Your task to perform on an android device: change notifications settings Image 0: 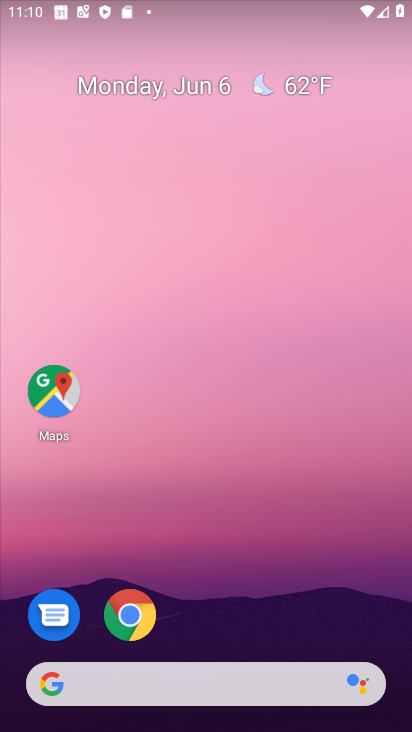
Step 0: press home button
Your task to perform on an android device: change notifications settings Image 1: 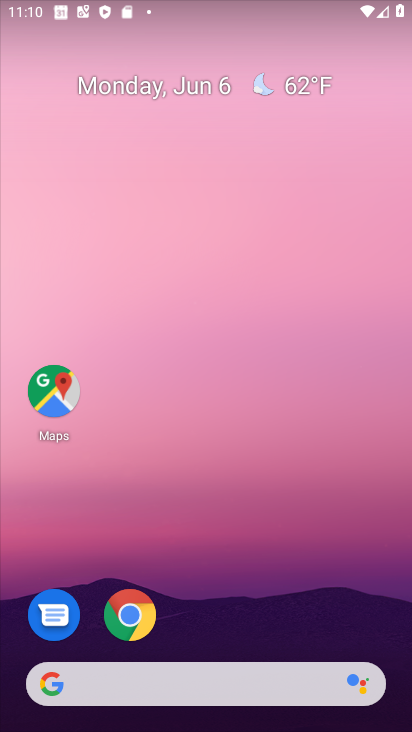
Step 1: drag from (232, 667) to (234, 110)
Your task to perform on an android device: change notifications settings Image 2: 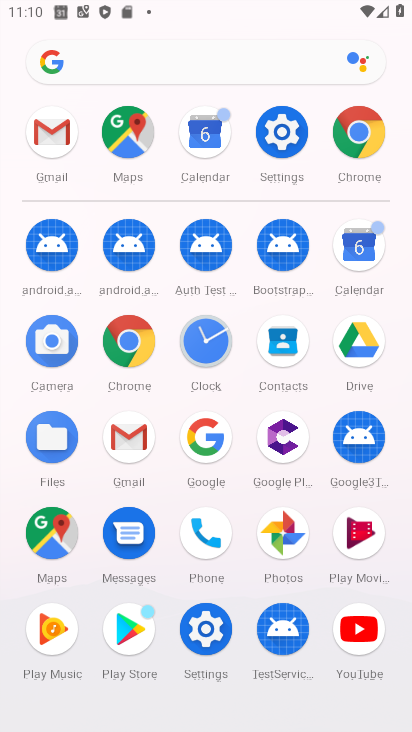
Step 2: click (272, 133)
Your task to perform on an android device: change notifications settings Image 3: 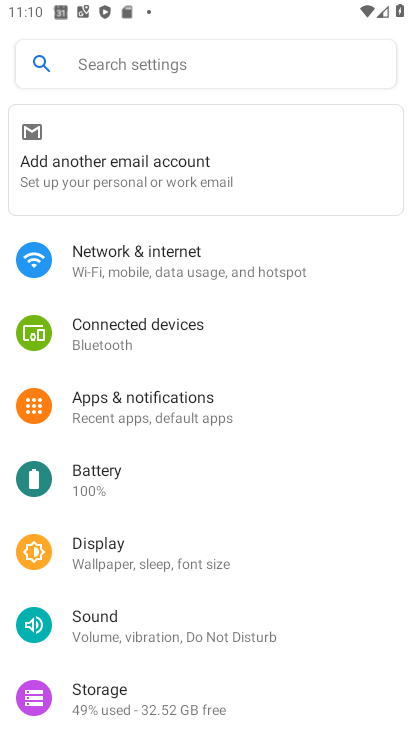
Step 3: click (99, 622)
Your task to perform on an android device: change notifications settings Image 4: 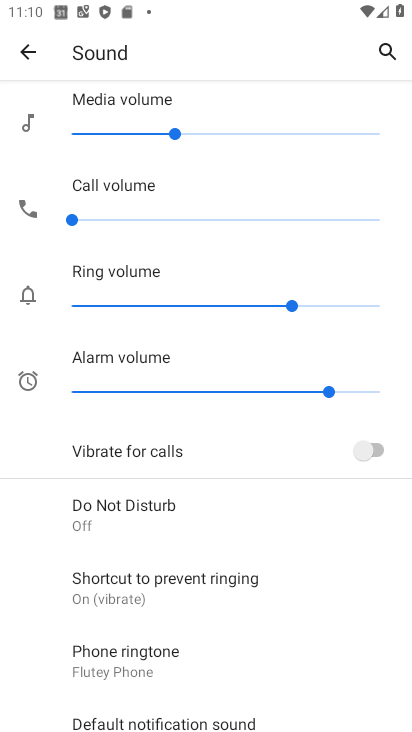
Step 4: drag from (218, 648) to (281, 185)
Your task to perform on an android device: change notifications settings Image 5: 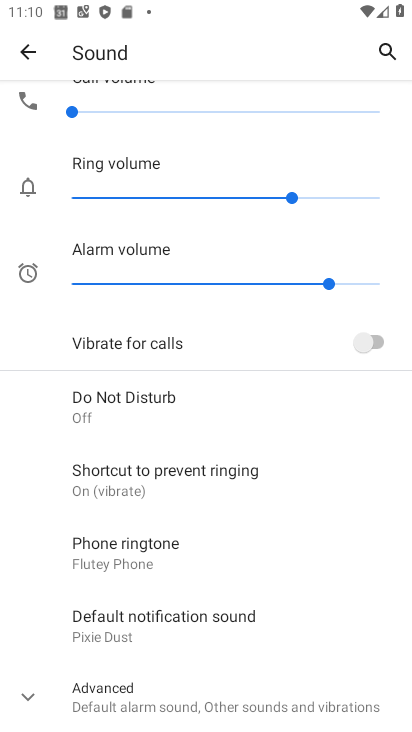
Step 5: click (377, 341)
Your task to perform on an android device: change notifications settings Image 6: 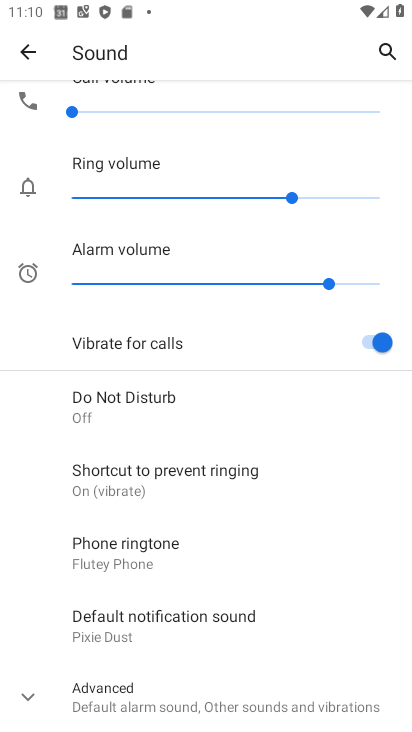
Step 6: click (157, 555)
Your task to perform on an android device: change notifications settings Image 7: 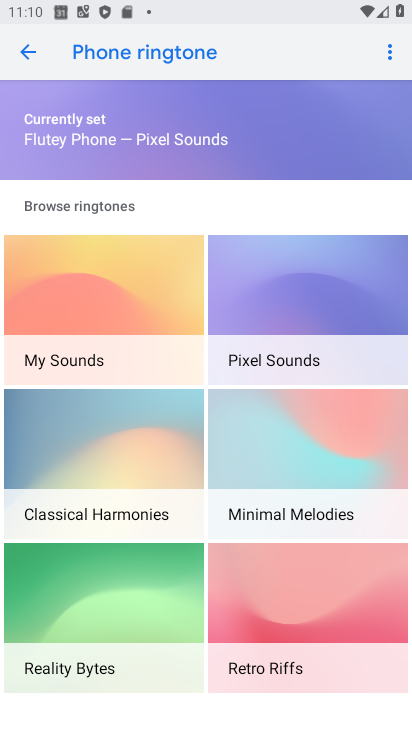
Step 7: click (100, 628)
Your task to perform on an android device: change notifications settings Image 8: 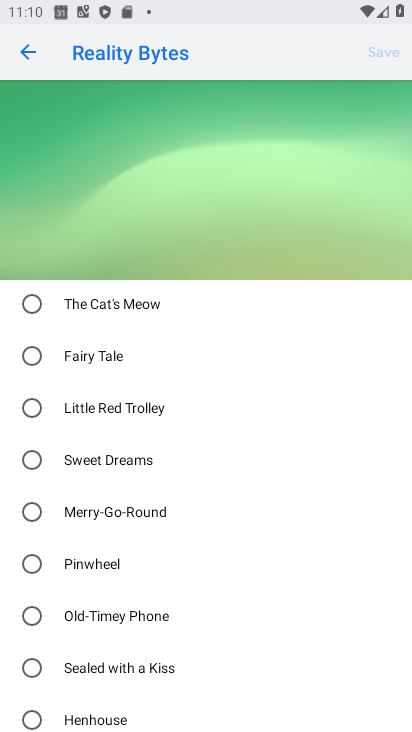
Step 8: click (34, 302)
Your task to perform on an android device: change notifications settings Image 9: 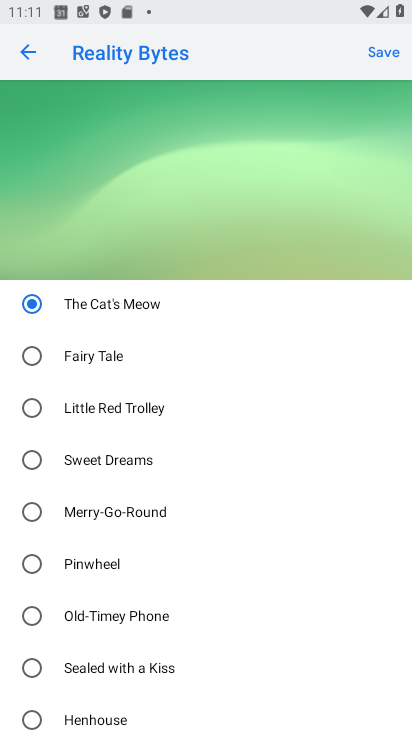
Step 9: task complete